Your task to perform on an android device: What's the weather going to be tomorrow? Image 0: 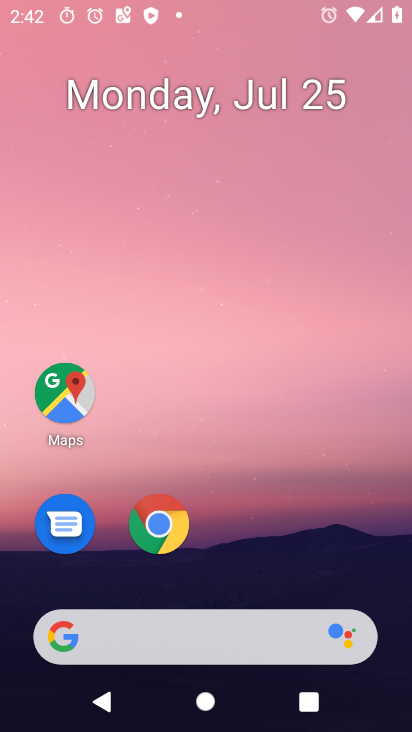
Step 0: press home button
Your task to perform on an android device: What's the weather going to be tomorrow? Image 1: 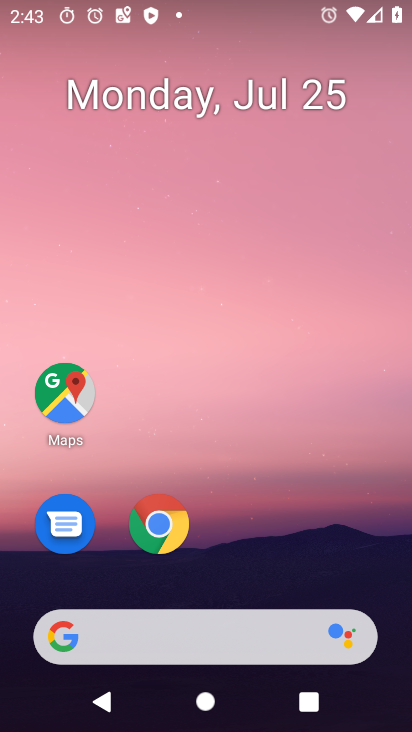
Step 1: click (67, 642)
Your task to perform on an android device: What's the weather going to be tomorrow? Image 2: 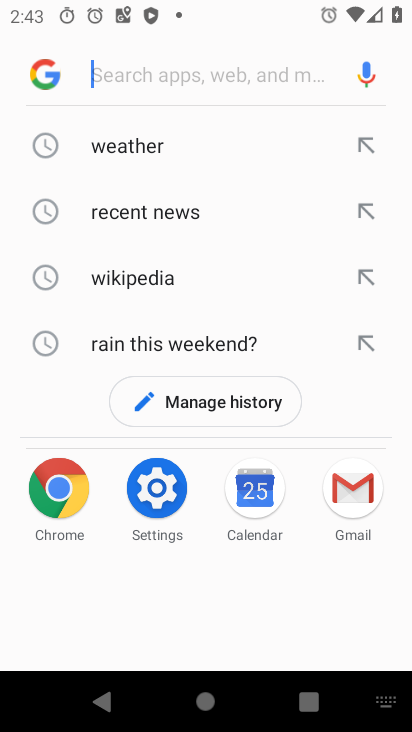
Step 2: type "weather going to be tomorrow?"
Your task to perform on an android device: What's the weather going to be tomorrow? Image 3: 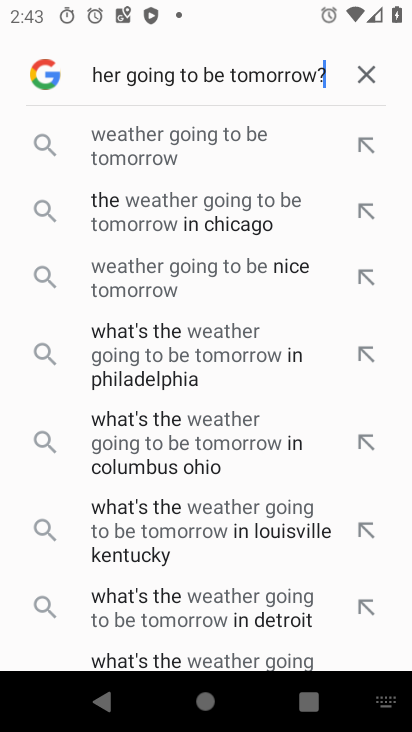
Step 3: press enter
Your task to perform on an android device: What's the weather going to be tomorrow? Image 4: 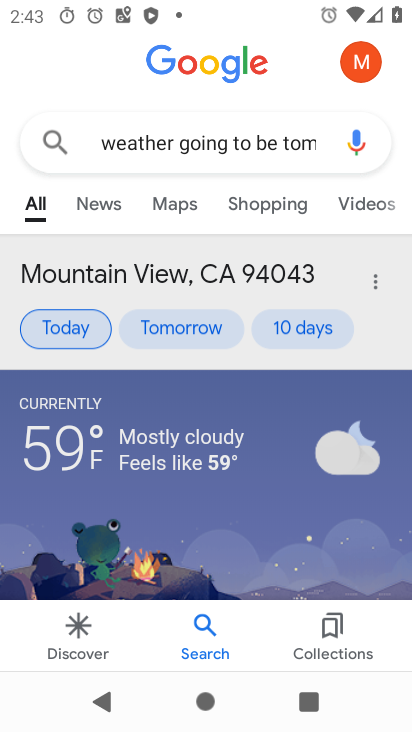
Step 4: task complete